Your task to perform on an android device: toggle data saver in the chrome app Image 0: 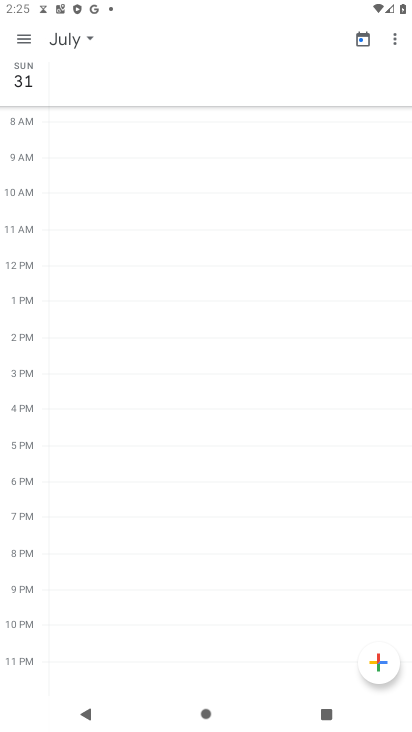
Step 0: press home button
Your task to perform on an android device: toggle data saver in the chrome app Image 1: 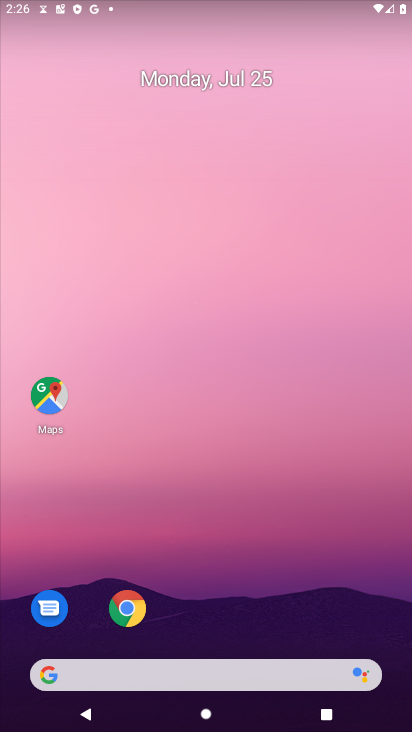
Step 1: click (129, 606)
Your task to perform on an android device: toggle data saver in the chrome app Image 2: 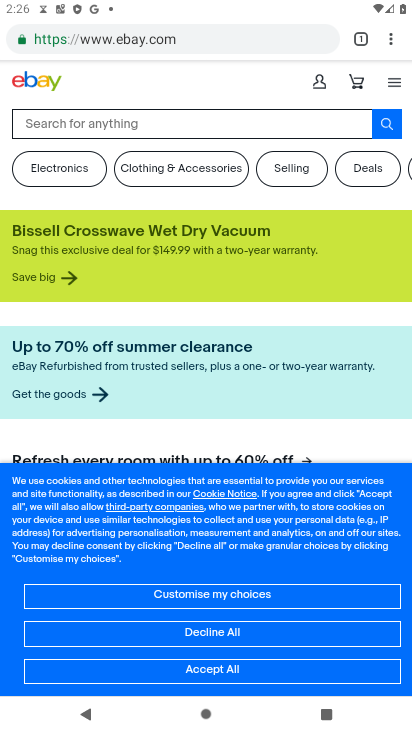
Step 2: click (391, 42)
Your task to perform on an android device: toggle data saver in the chrome app Image 3: 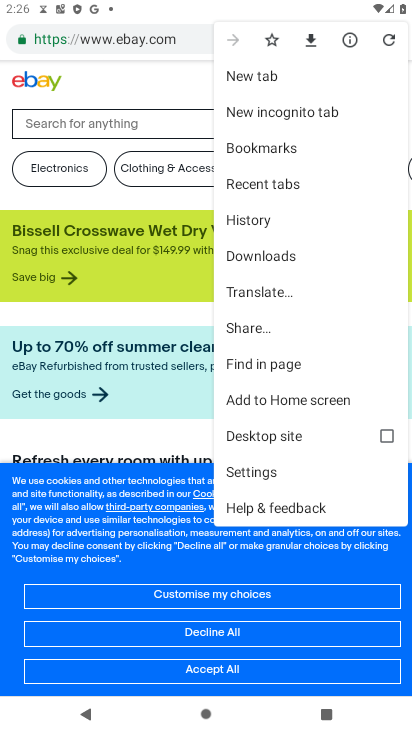
Step 3: click (245, 468)
Your task to perform on an android device: toggle data saver in the chrome app Image 4: 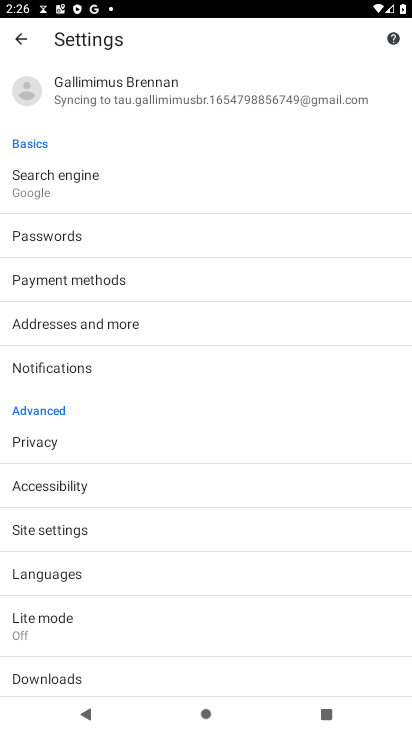
Step 4: click (41, 613)
Your task to perform on an android device: toggle data saver in the chrome app Image 5: 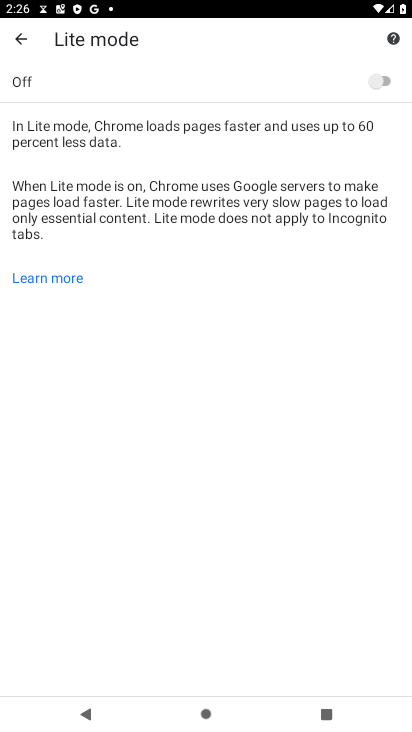
Step 5: click (374, 83)
Your task to perform on an android device: toggle data saver in the chrome app Image 6: 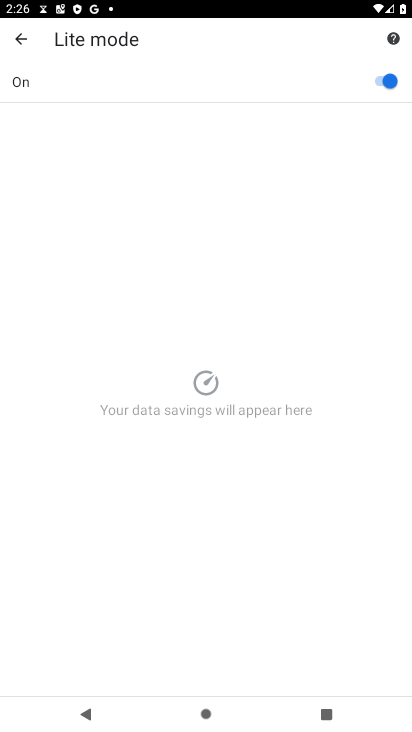
Step 6: task complete